Your task to perform on an android device: open app "Google Docs" (install if not already installed) Image 0: 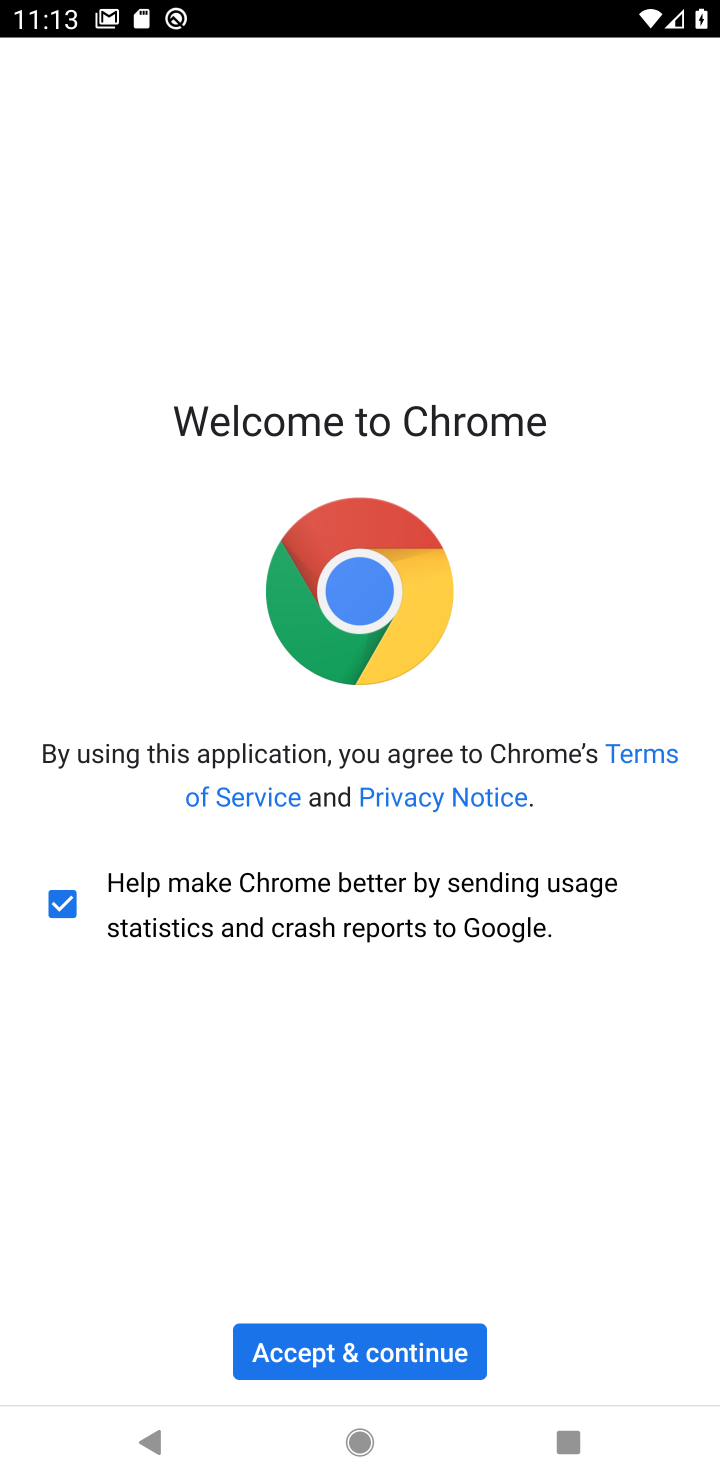
Step 0: click (370, 1354)
Your task to perform on an android device: open app "Google Docs" (install if not already installed) Image 1: 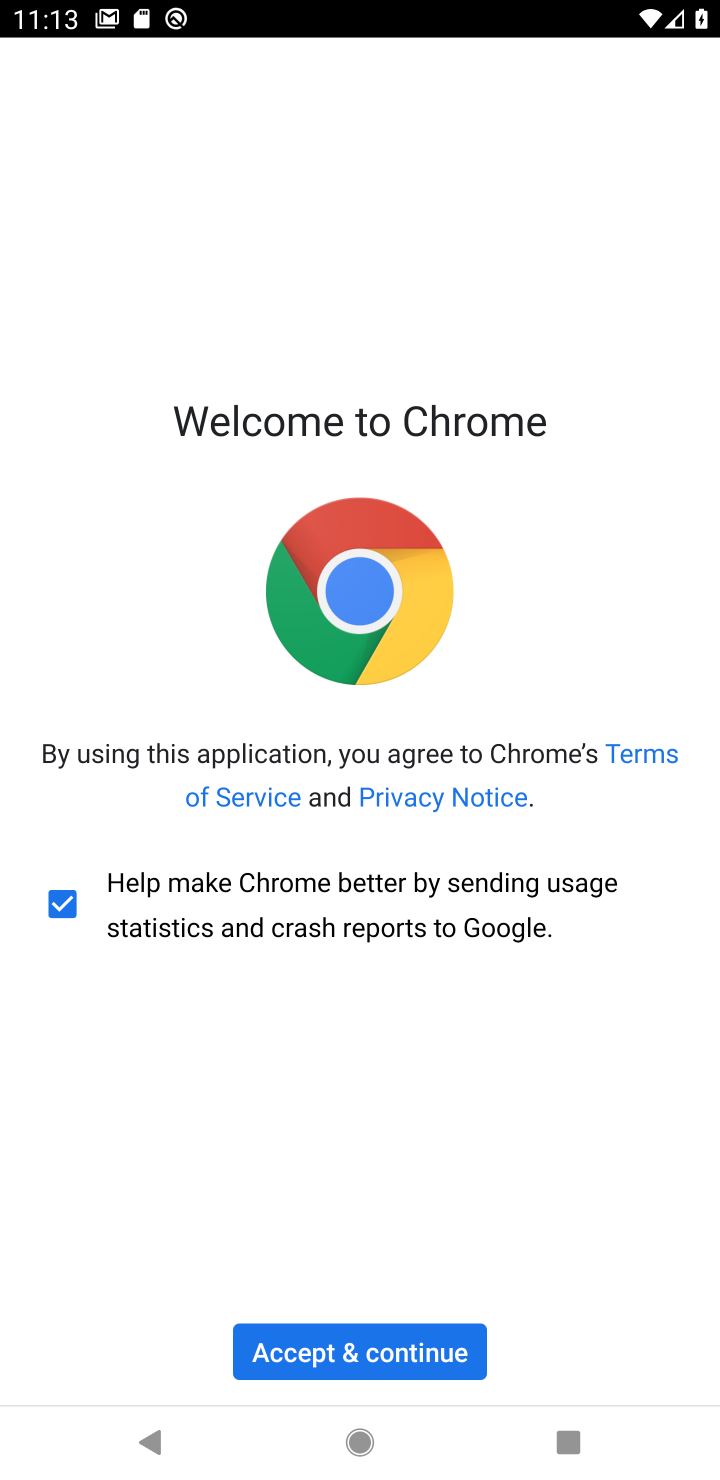
Step 1: click (368, 1359)
Your task to perform on an android device: open app "Google Docs" (install if not already installed) Image 2: 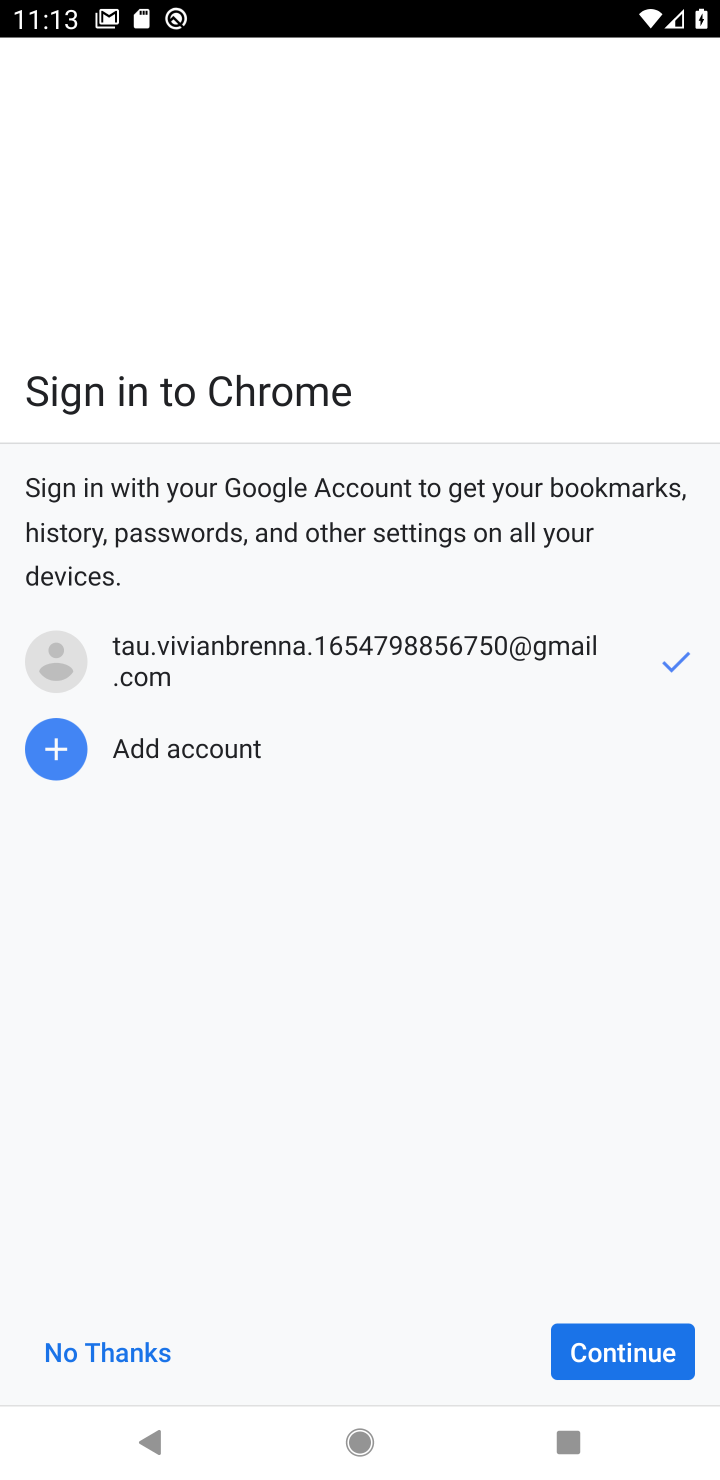
Step 2: click (370, 1361)
Your task to perform on an android device: open app "Google Docs" (install if not already installed) Image 3: 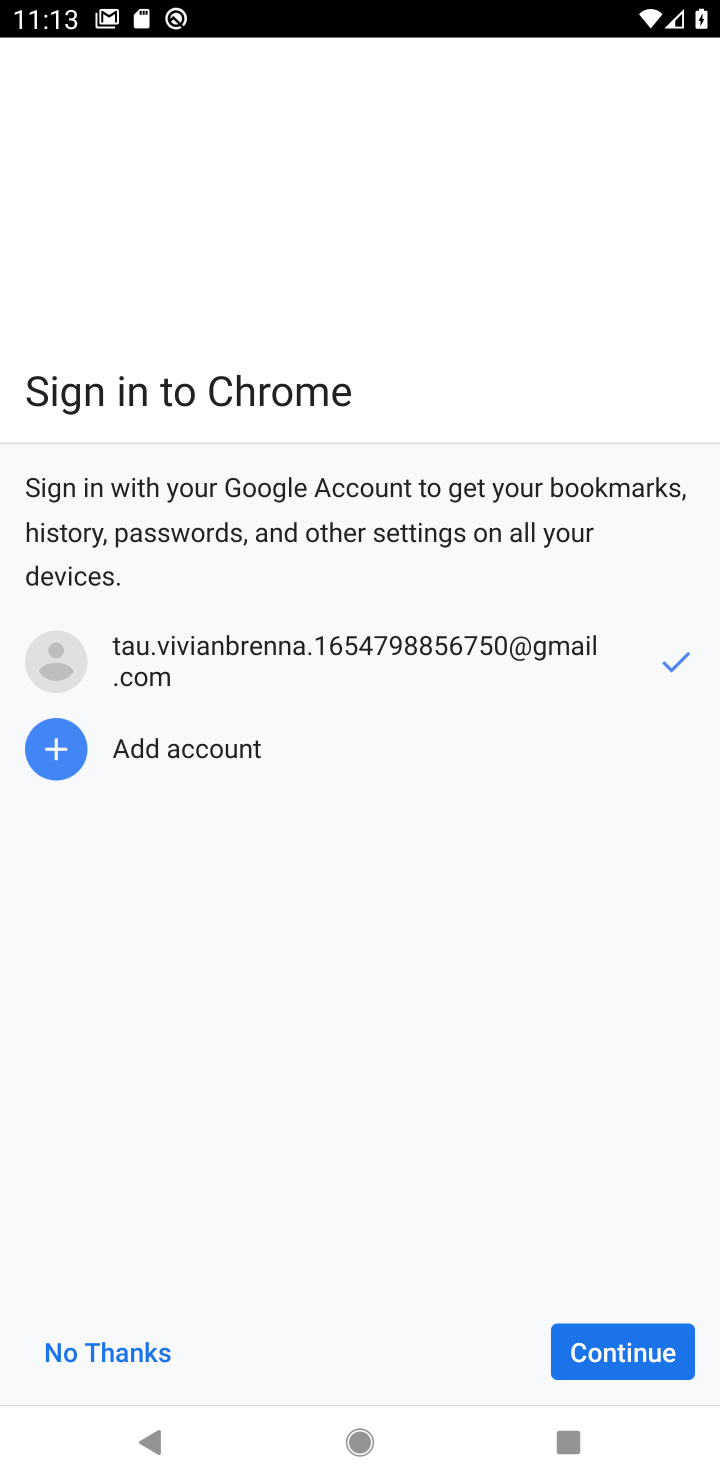
Step 3: click (141, 1359)
Your task to perform on an android device: open app "Google Docs" (install if not already installed) Image 4: 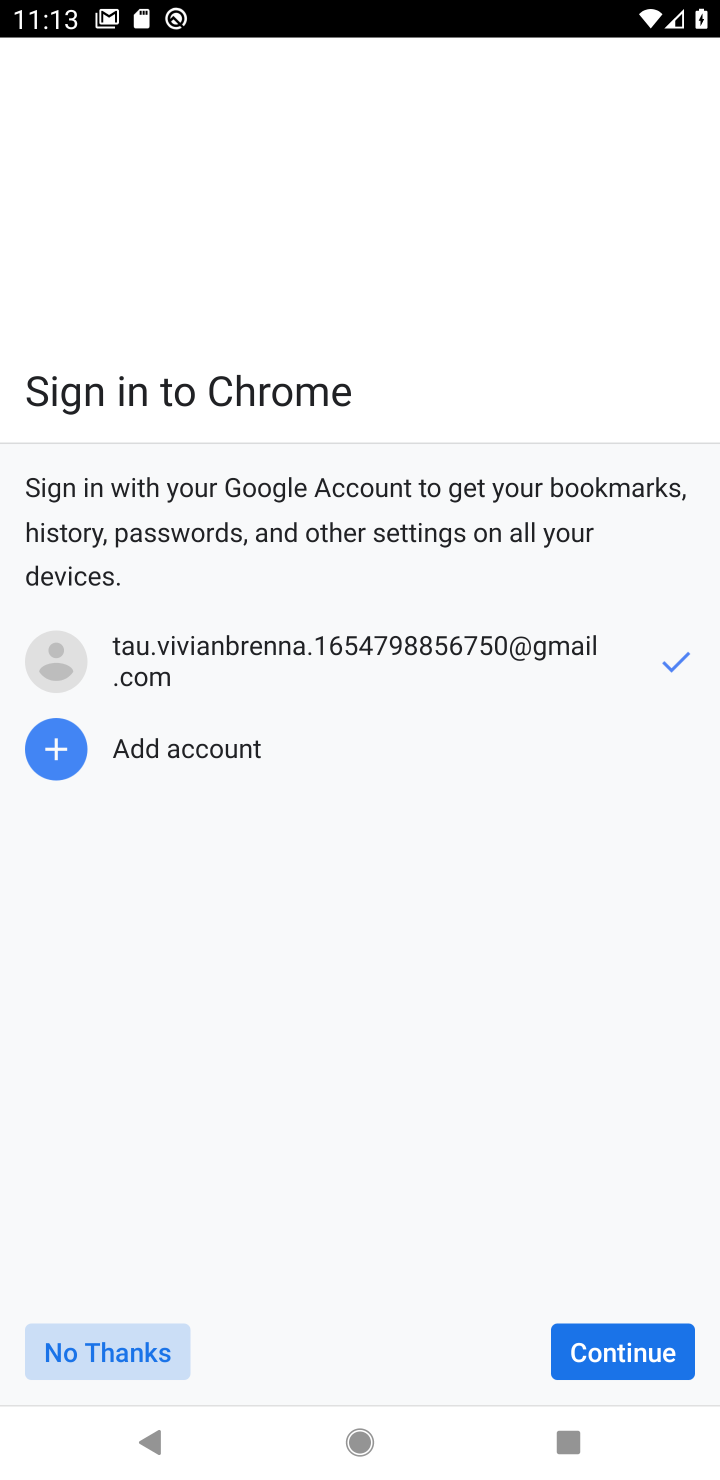
Step 4: click (132, 1361)
Your task to perform on an android device: open app "Google Docs" (install if not already installed) Image 5: 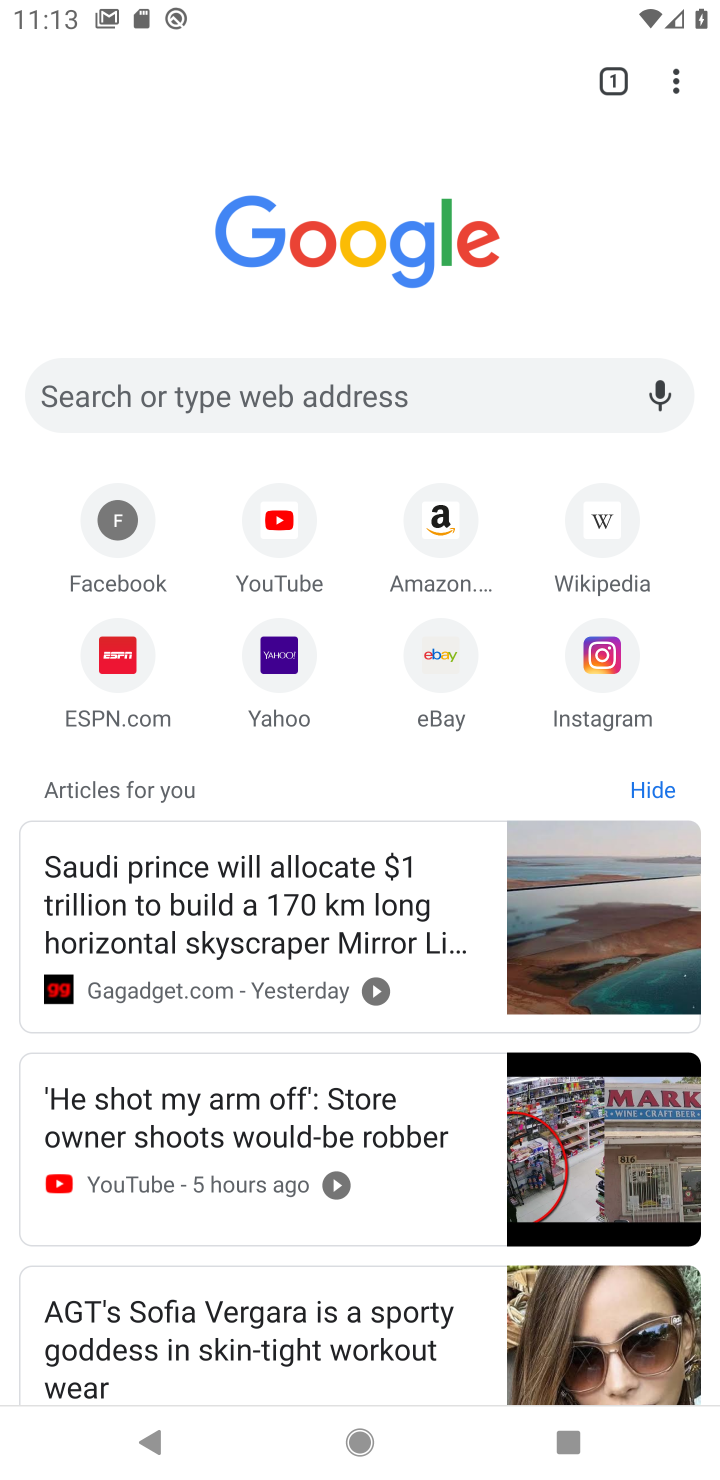
Step 5: task complete